Your task to perform on an android device: read, delete, or share a saved page in the chrome app Image 0: 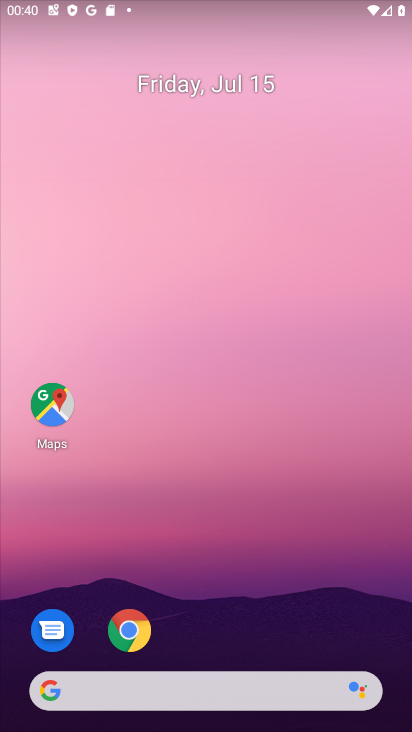
Step 0: click (160, 630)
Your task to perform on an android device: read, delete, or share a saved page in the chrome app Image 1: 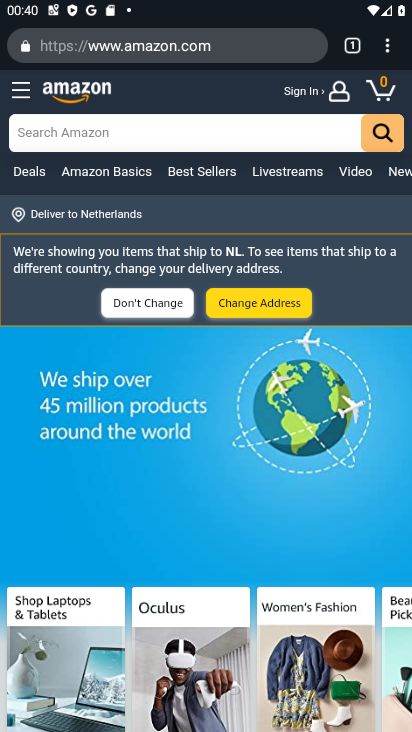
Step 1: click (388, 53)
Your task to perform on an android device: read, delete, or share a saved page in the chrome app Image 2: 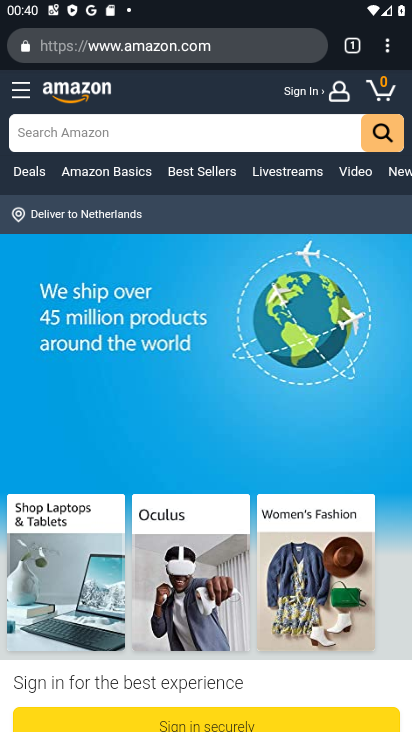
Step 2: click (380, 67)
Your task to perform on an android device: read, delete, or share a saved page in the chrome app Image 3: 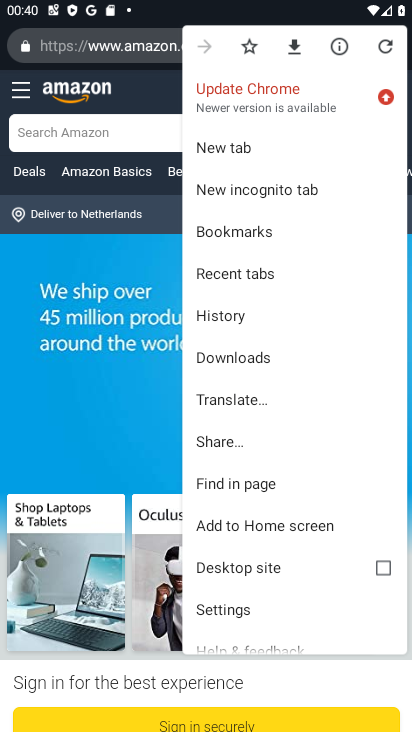
Step 3: click (263, 357)
Your task to perform on an android device: read, delete, or share a saved page in the chrome app Image 4: 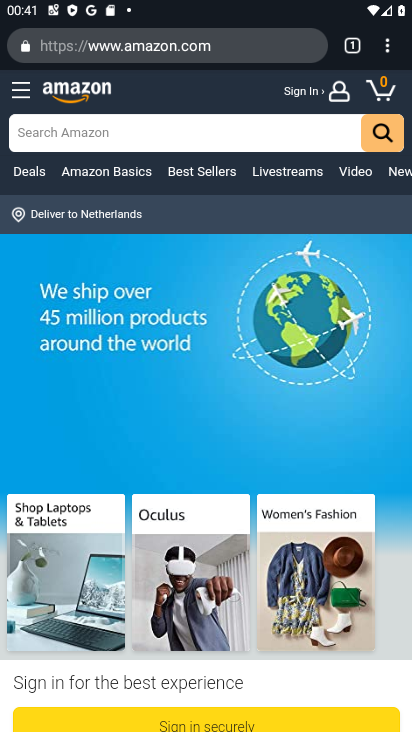
Step 4: task complete